Your task to perform on an android device: Open maps Image 0: 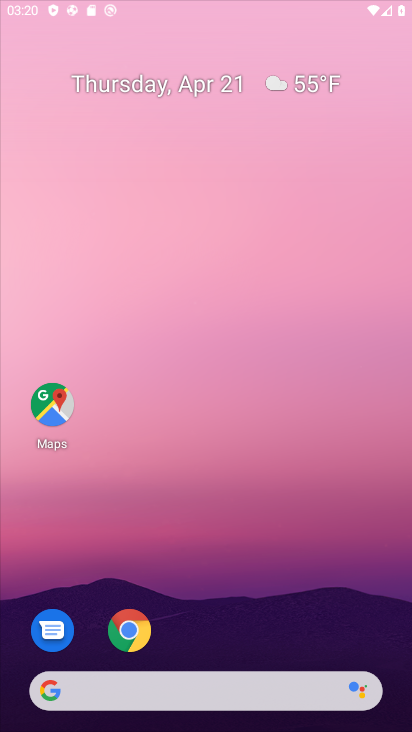
Step 0: click (412, 339)
Your task to perform on an android device: Open maps Image 1: 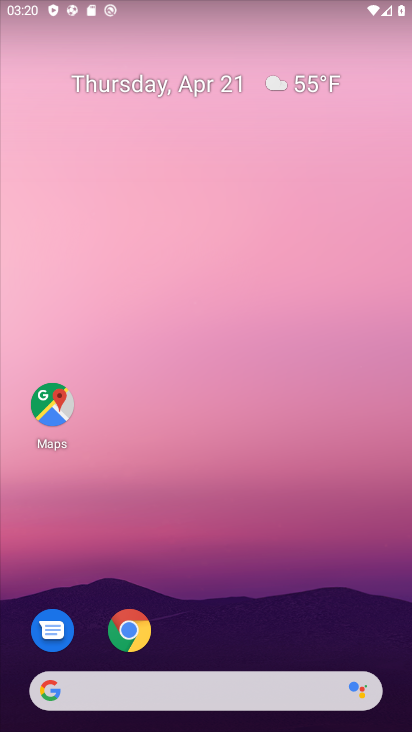
Step 1: click (44, 408)
Your task to perform on an android device: Open maps Image 2: 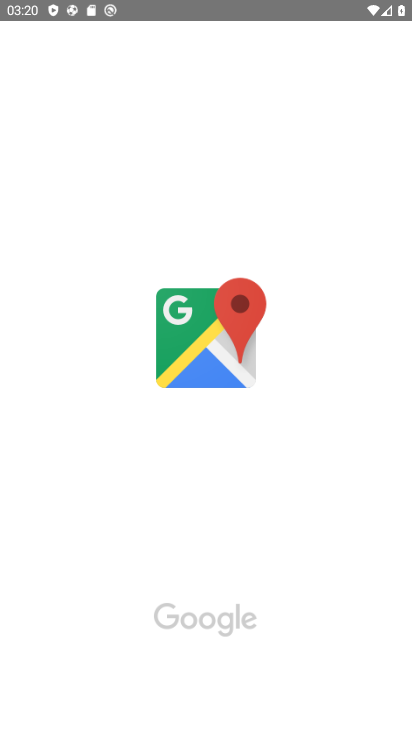
Step 2: click (241, 458)
Your task to perform on an android device: Open maps Image 3: 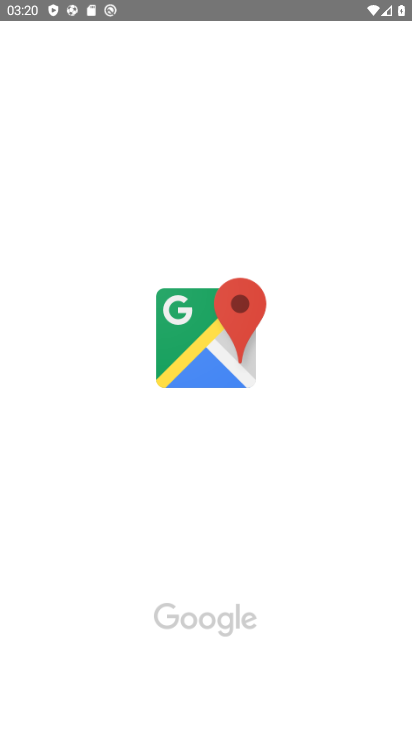
Step 3: drag from (236, 195) to (206, 418)
Your task to perform on an android device: Open maps Image 4: 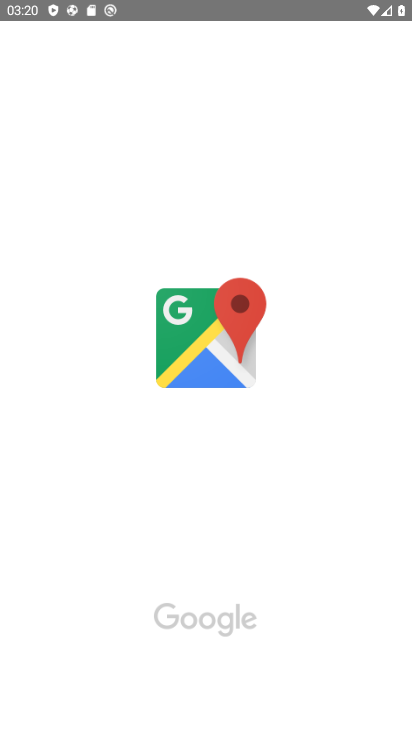
Step 4: drag from (268, 121) to (264, 493)
Your task to perform on an android device: Open maps Image 5: 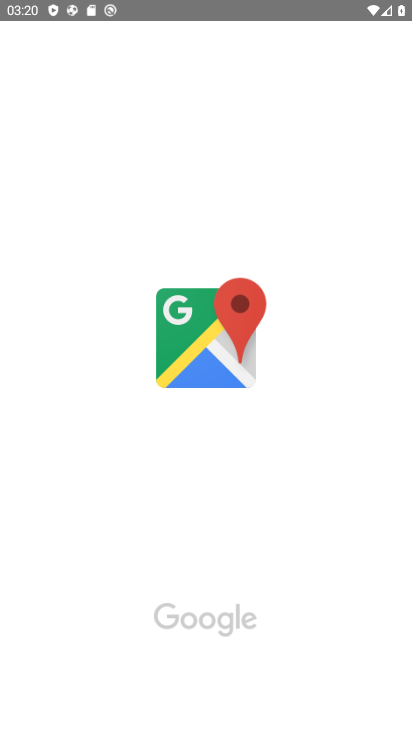
Step 5: drag from (274, 220) to (281, 507)
Your task to perform on an android device: Open maps Image 6: 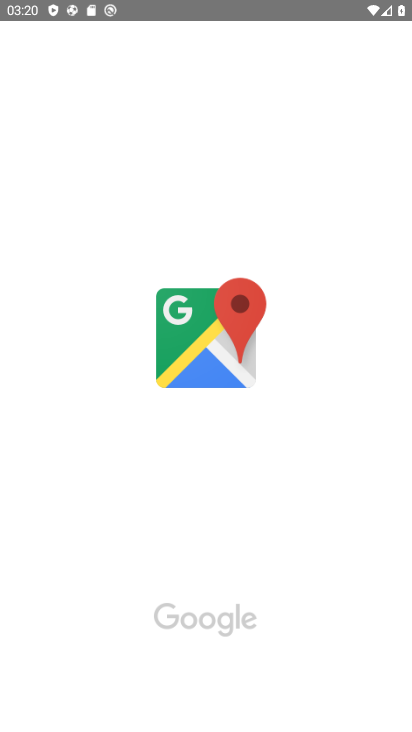
Step 6: drag from (311, 279) to (299, 487)
Your task to perform on an android device: Open maps Image 7: 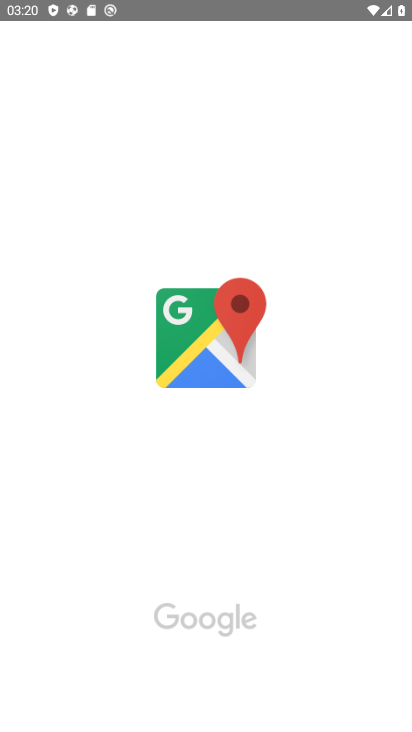
Step 7: click (189, 431)
Your task to perform on an android device: Open maps Image 8: 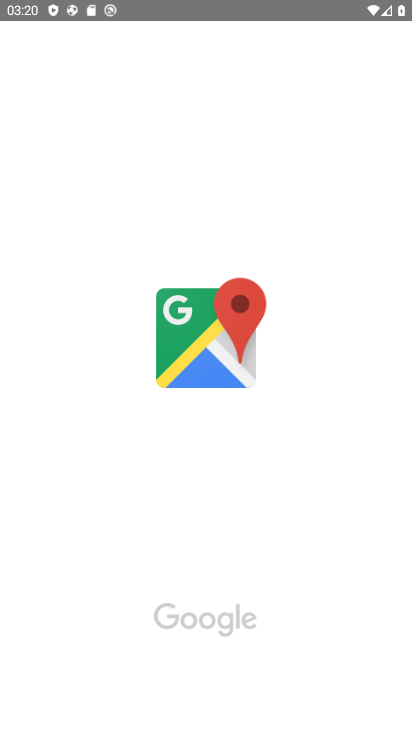
Step 8: task complete